Your task to perform on an android device: search for starred emails in the gmail app Image 0: 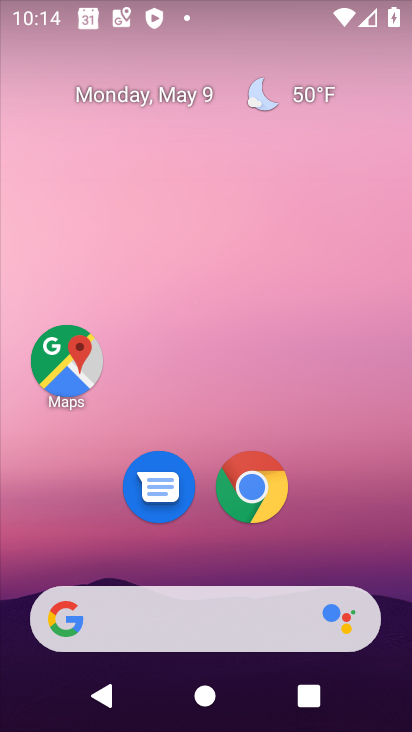
Step 0: drag from (28, 596) to (276, 133)
Your task to perform on an android device: search for starred emails in the gmail app Image 1: 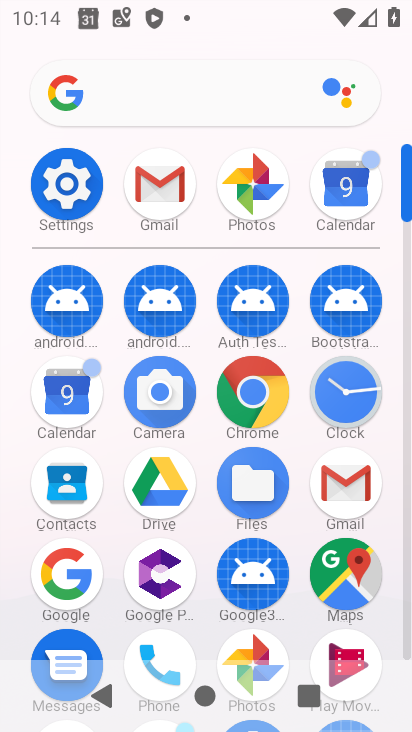
Step 1: click (171, 192)
Your task to perform on an android device: search for starred emails in the gmail app Image 2: 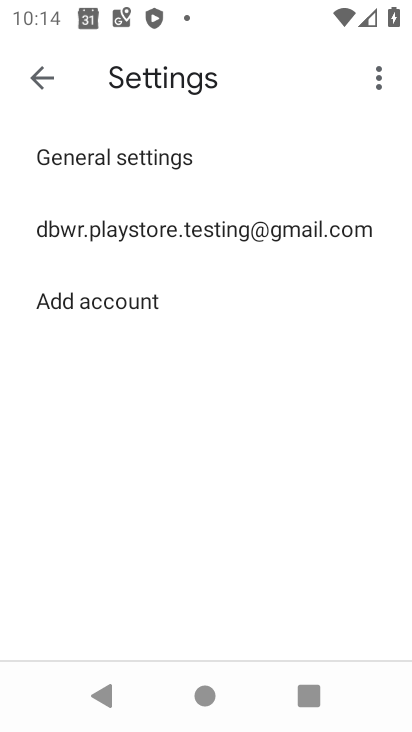
Step 2: press back button
Your task to perform on an android device: search for starred emails in the gmail app Image 3: 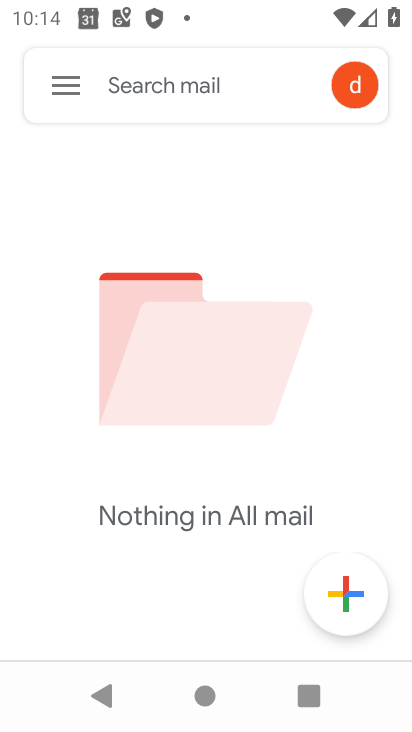
Step 3: click (64, 82)
Your task to perform on an android device: search for starred emails in the gmail app Image 4: 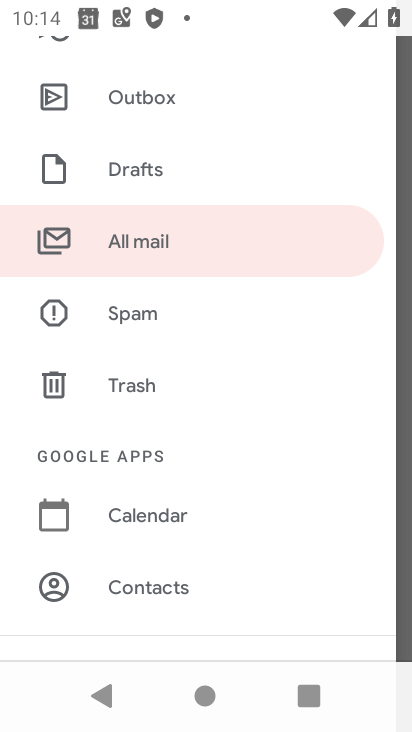
Step 4: task complete